Your task to perform on an android device: Search for vintage wall art on Etsy. Image 0: 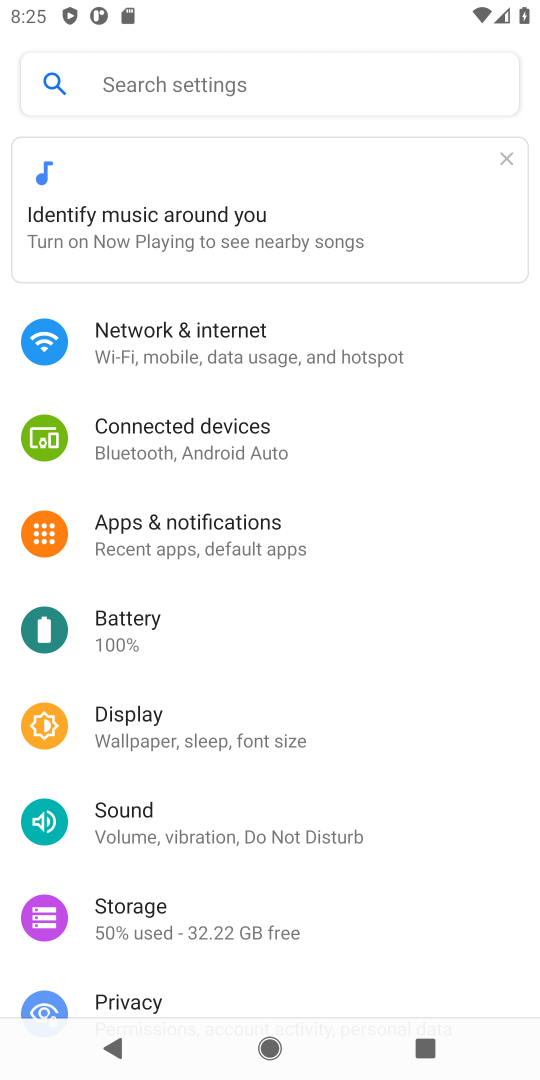
Step 0: press home button
Your task to perform on an android device: Search for vintage wall art on Etsy. Image 1: 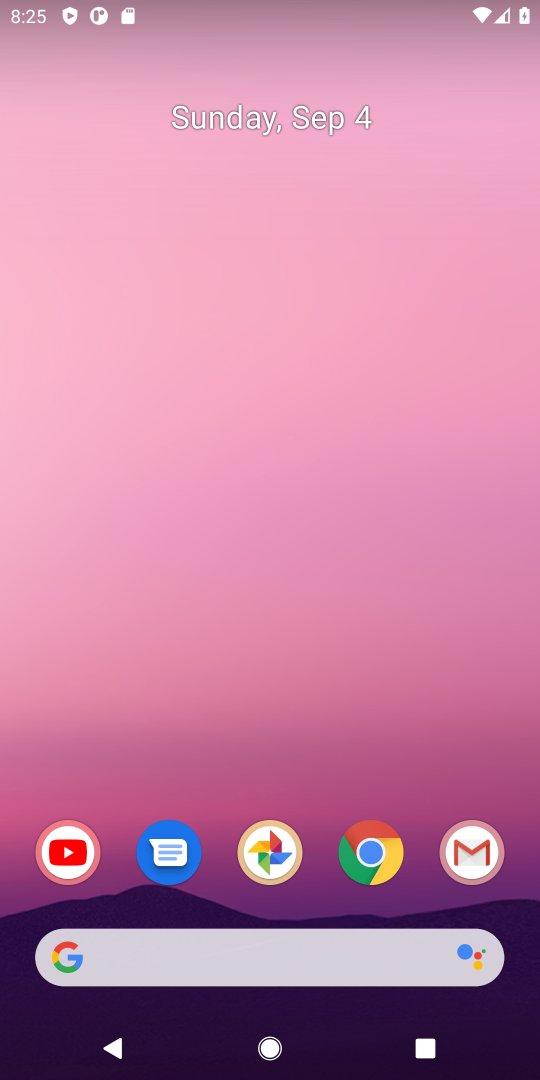
Step 1: drag from (424, 797) to (236, 93)
Your task to perform on an android device: Search for vintage wall art on Etsy. Image 2: 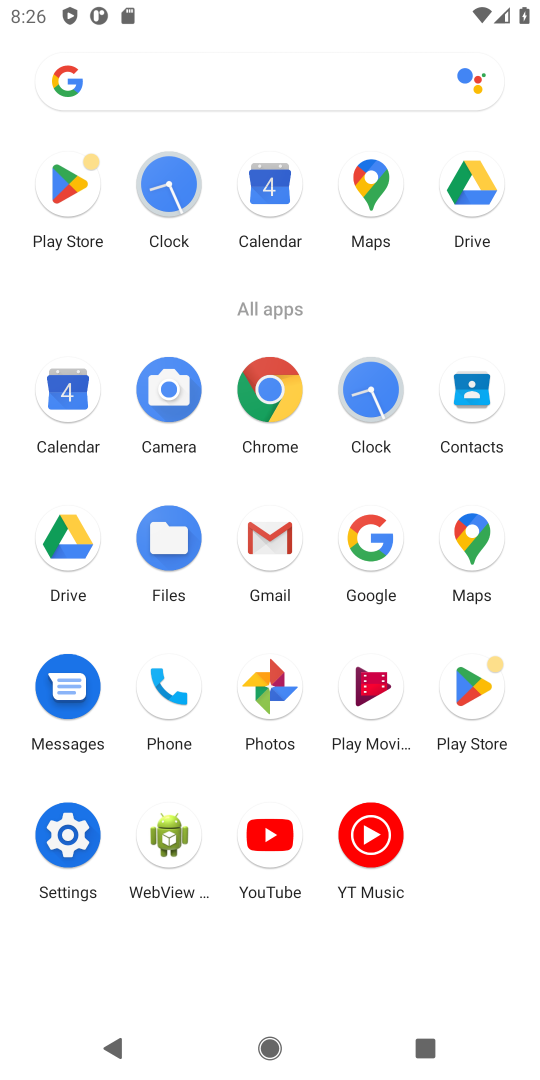
Step 2: click (359, 546)
Your task to perform on an android device: Search for vintage wall art on Etsy. Image 3: 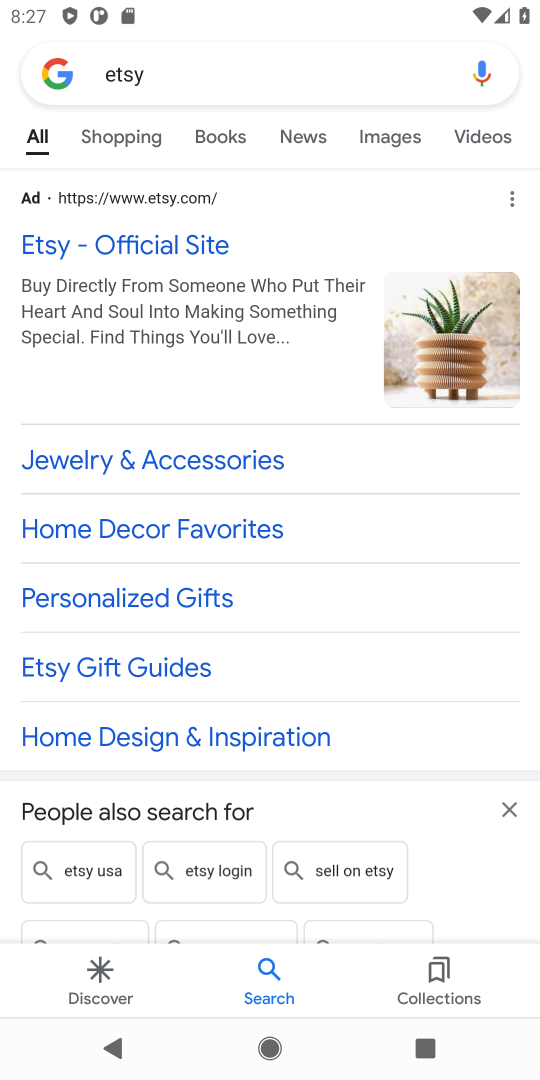
Step 3: click (187, 245)
Your task to perform on an android device: Search for vintage wall art on Etsy. Image 4: 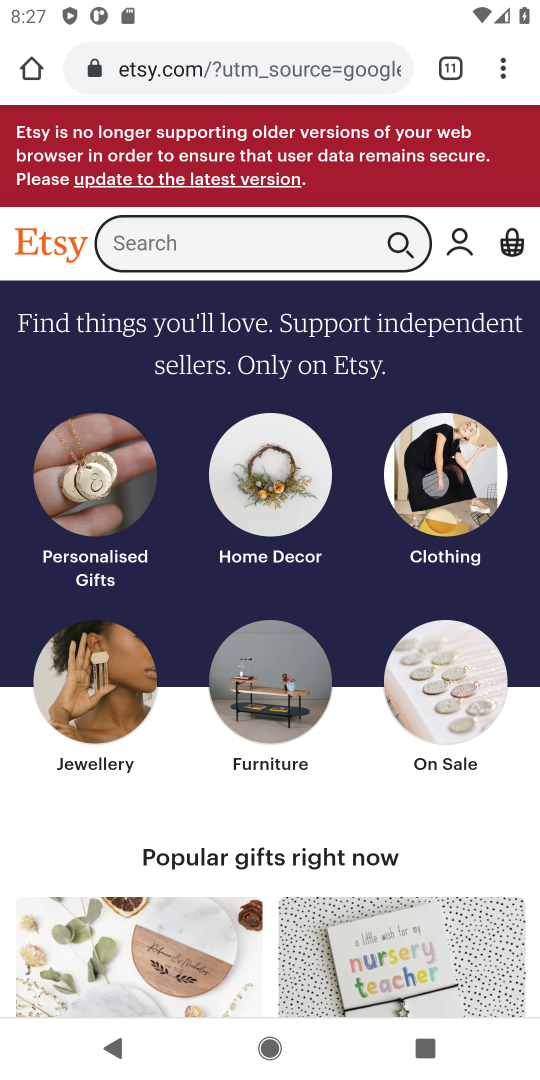
Step 4: click (187, 245)
Your task to perform on an android device: Search for vintage wall art on Etsy. Image 5: 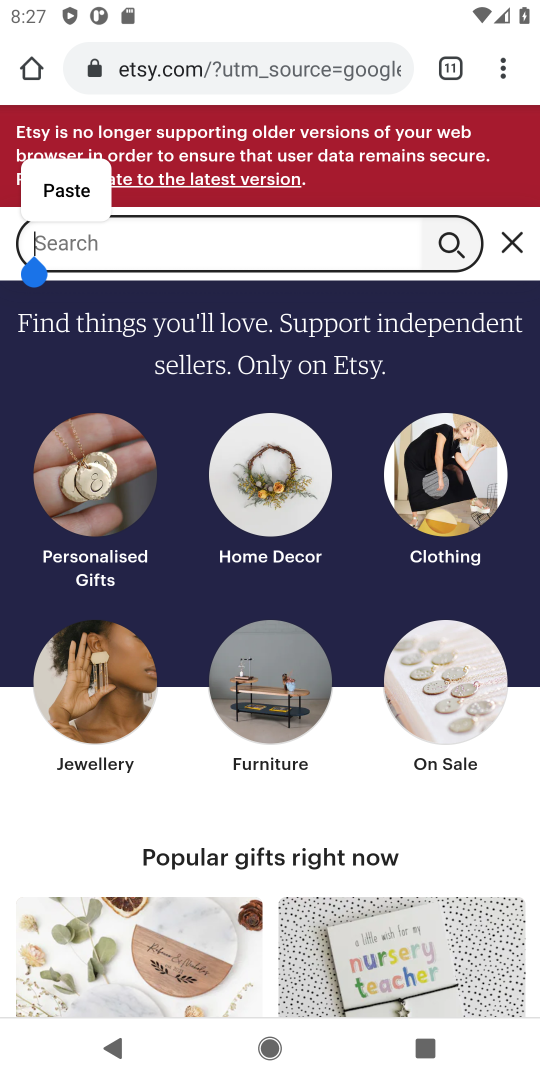
Step 5: type "vintage wall "
Your task to perform on an android device: Search for vintage wall art on Etsy. Image 6: 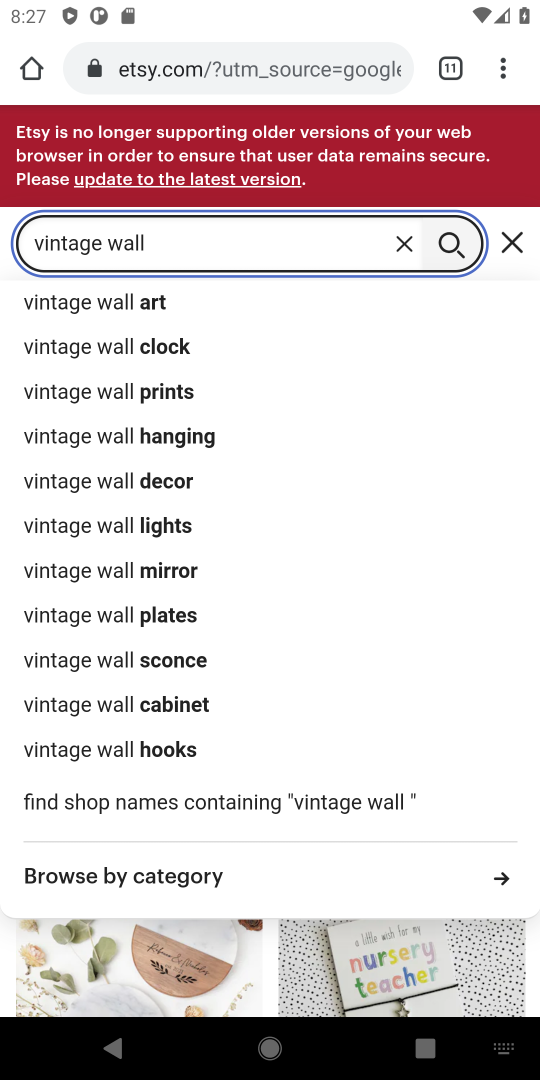
Step 6: click (97, 294)
Your task to perform on an android device: Search for vintage wall art on Etsy. Image 7: 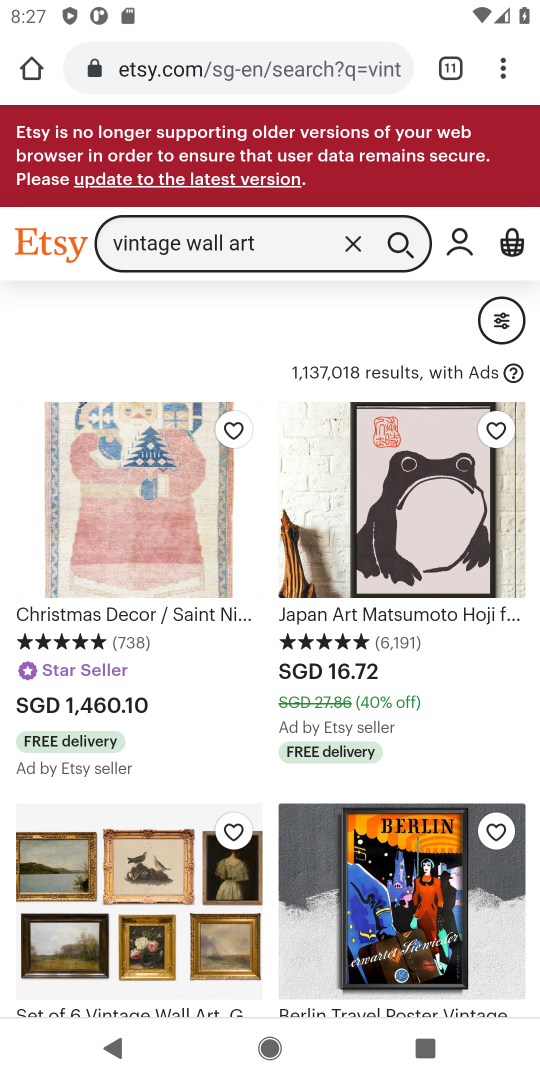
Step 7: task complete